Your task to perform on an android device: Go to Google maps Image 0: 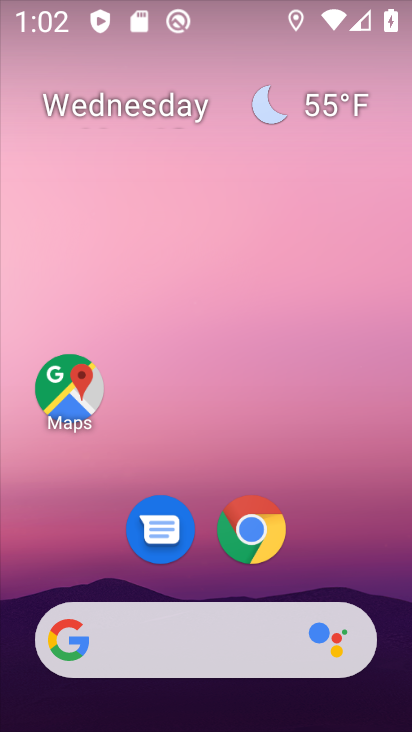
Step 0: drag from (204, 723) to (190, 170)
Your task to perform on an android device: Go to Google maps Image 1: 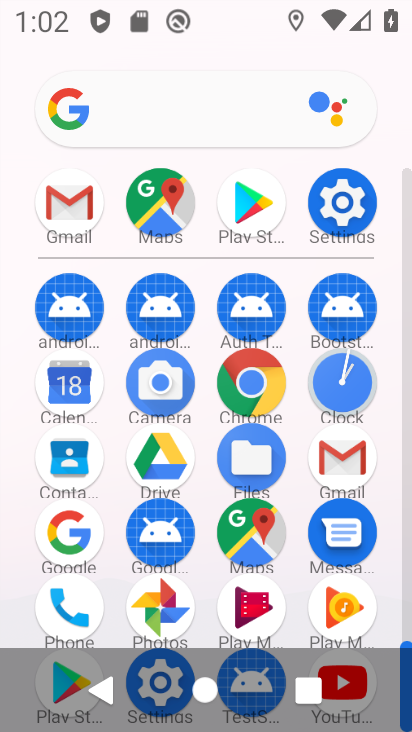
Step 1: click (256, 541)
Your task to perform on an android device: Go to Google maps Image 2: 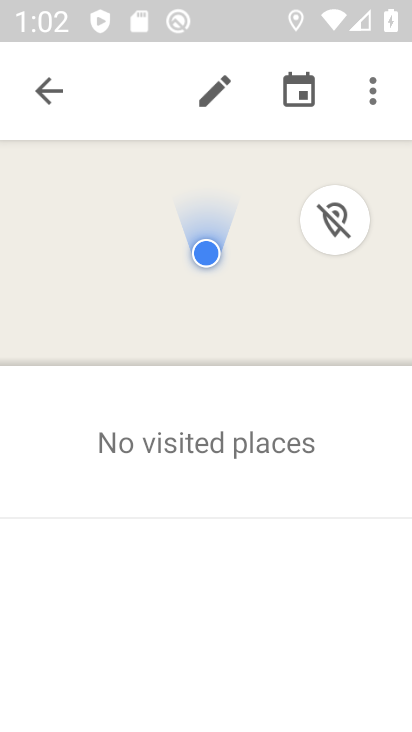
Step 2: task complete